Your task to perform on an android device: turn pop-ups off in chrome Image 0: 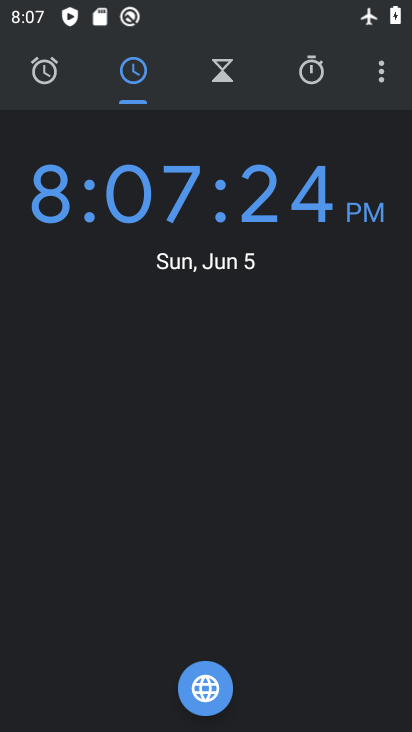
Step 0: press home button
Your task to perform on an android device: turn pop-ups off in chrome Image 1: 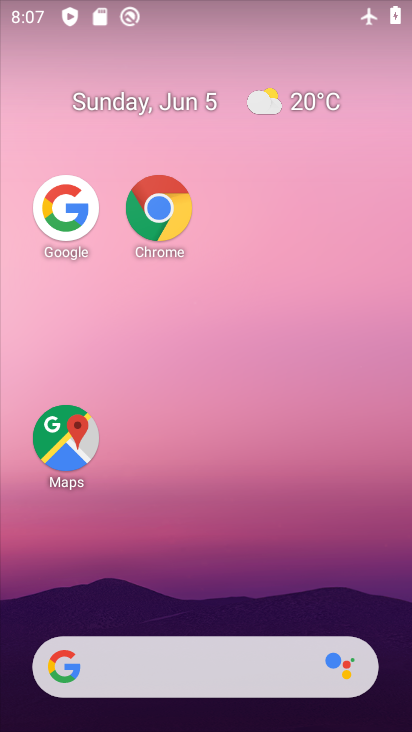
Step 1: click (176, 207)
Your task to perform on an android device: turn pop-ups off in chrome Image 2: 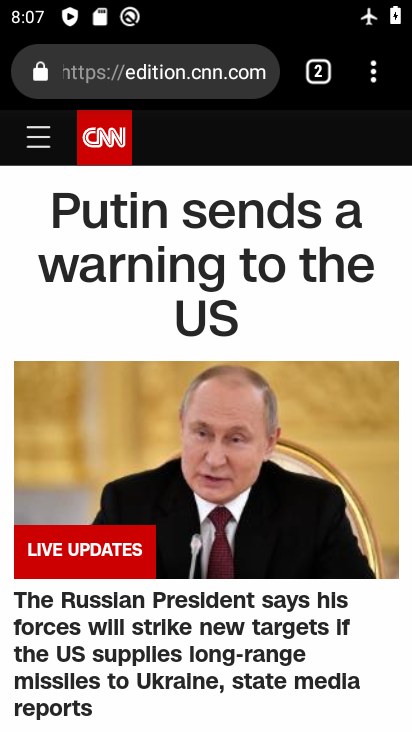
Step 2: click (377, 68)
Your task to perform on an android device: turn pop-ups off in chrome Image 3: 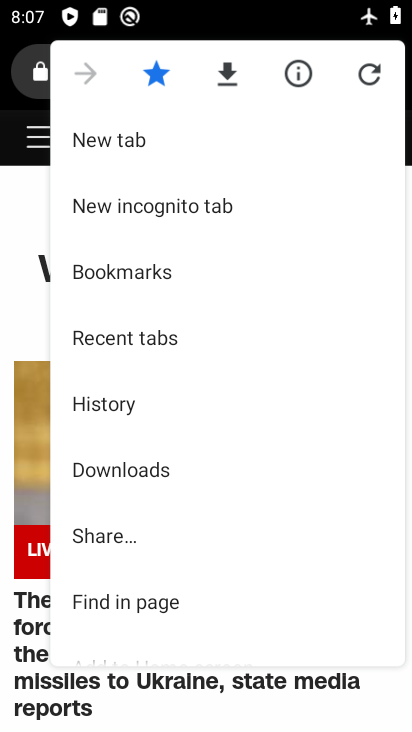
Step 3: drag from (153, 576) to (103, 176)
Your task to perform on an android device: turn pop-ups off in chrome Image 4: 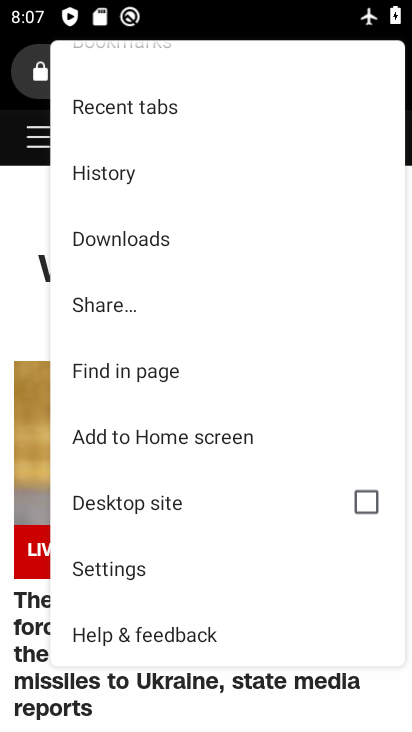
Step 4: click (115, 569)
Your task to perform on an android device: turn pop-ups off in chrome Image 5: 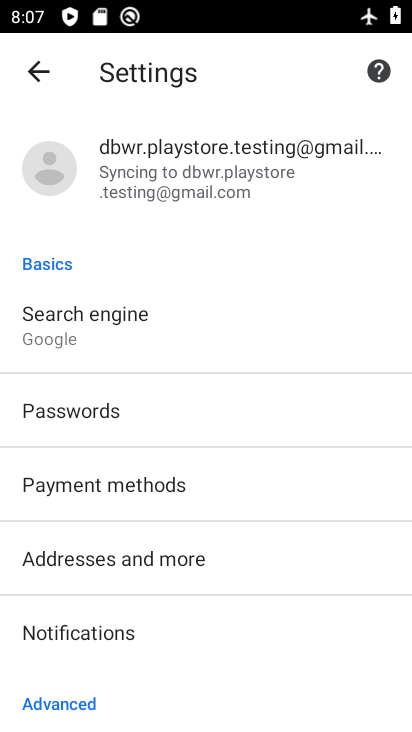
Step 5: drag from (115, 569) to (1, 221)
Your task to perform on an android device: turn pop-ups off in chrome Image 6: 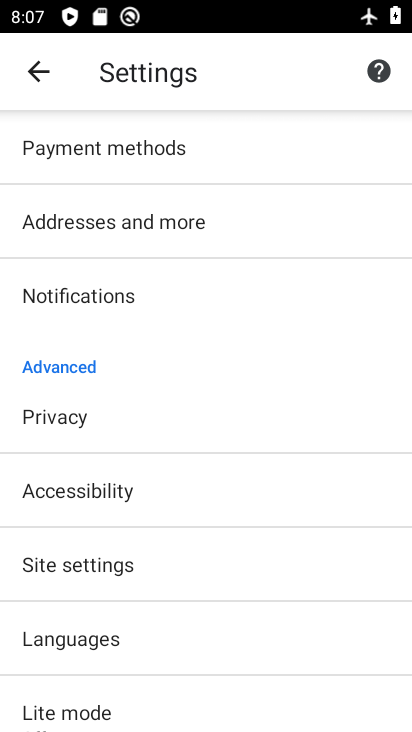
Step 6: click (97, 546)
Your task to perform on an android device: turn pop-ups off in chrome Image 7: 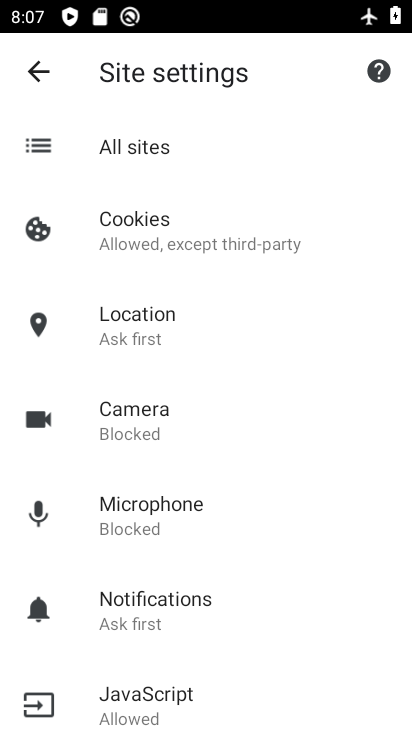
Step 7: drag from (301, 677) to (226, 270)
Your task to perform on an android device: turn pop-ups off in chrome Image 8: 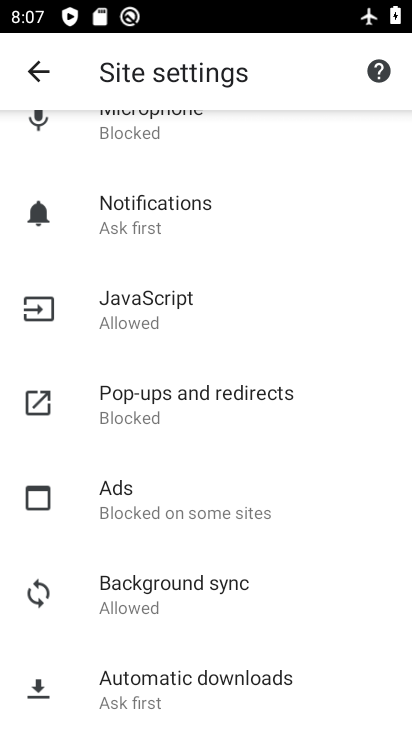
Step 8: click (175, 409)
Your task to perform on an android device: turn pop-ups off in chrome Image 9: 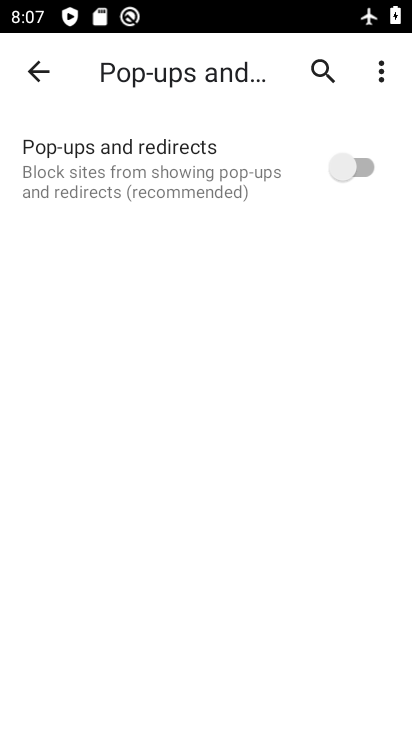
Step 9: task complete